Your task to perform on an android device: Open network settings Image 0: 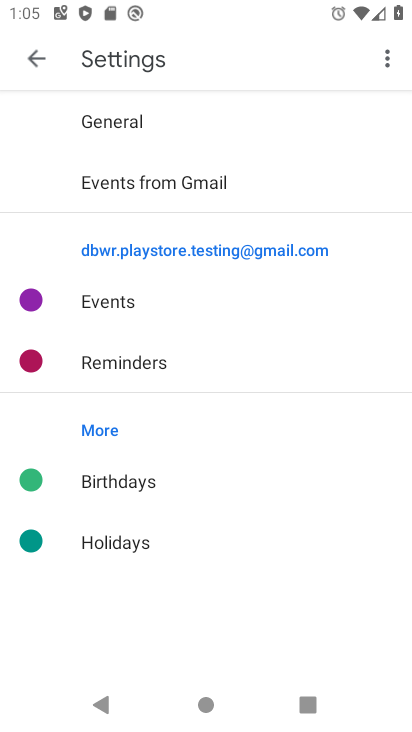
Step 0: press home button
Your task to perform on an android device: Open network settings Image 1: 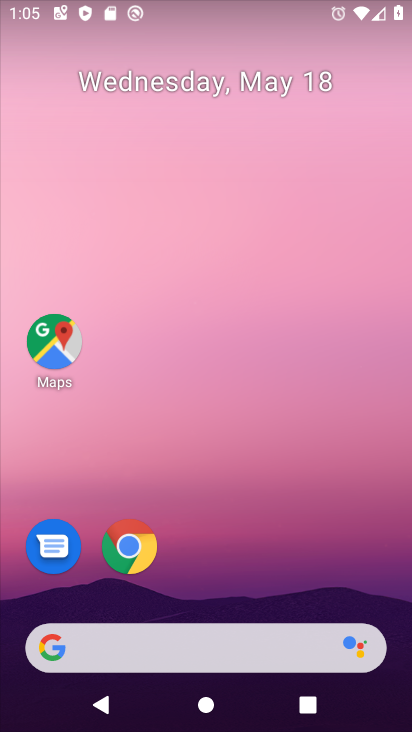
Step 1: drag from (211, 688) to (273, 154)
Your task to perform on an android device: Open network settings Image 2: 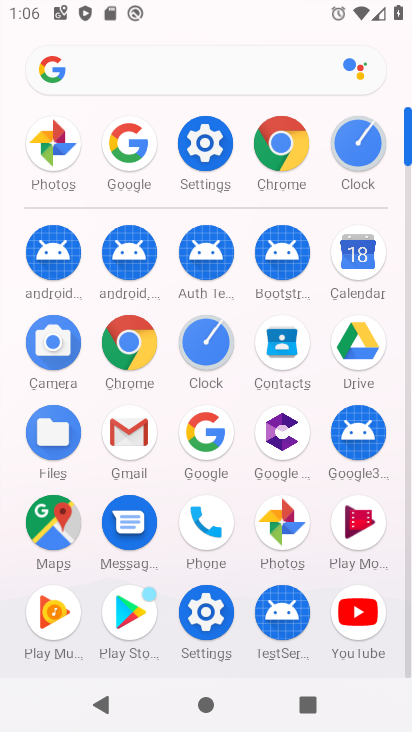
Step 2: click (202, 160)
Your task to perform on an android device: Open network settings Image 3: 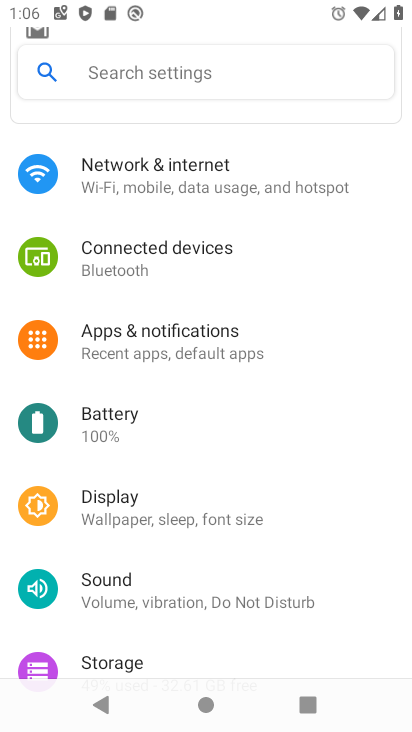
Step 3: click (198, 164)
Your task to perform on an android device: Open network settings Image 4: 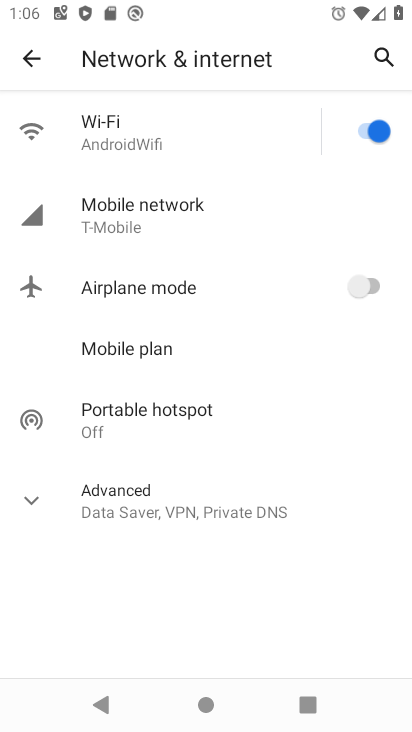
Step 4: click (201, 239)
Your task to perform on an android device: Open network settings Image 5: 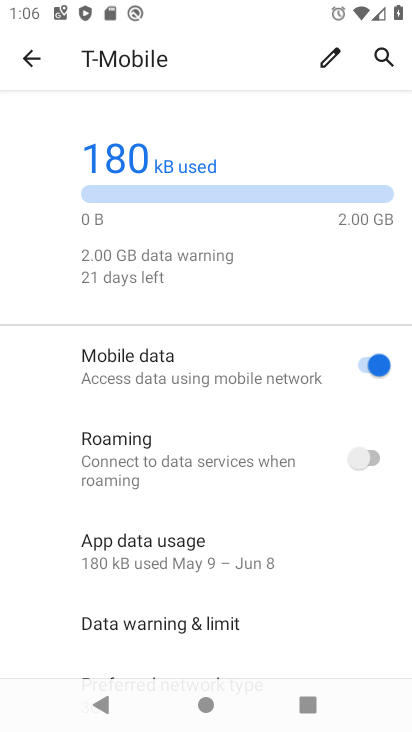
Step 5: task complete